Your task to perform on an android device: change notification settings in the gmail app Image 0: 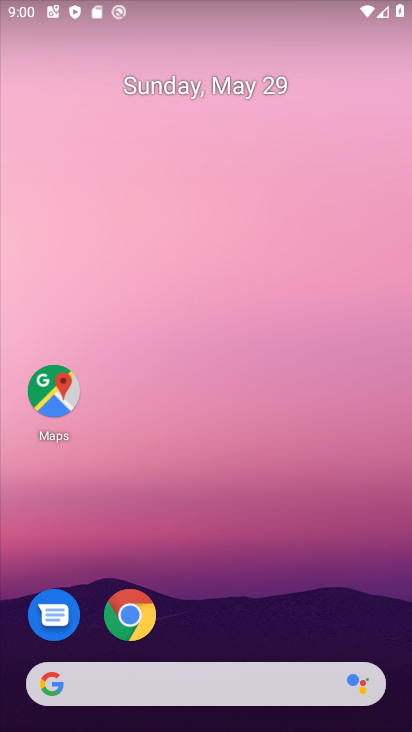
Step 0: drag from (307, 621) to (399, 6)
Your task to perform on an android device: change notification settings in the gmail app Image 1: 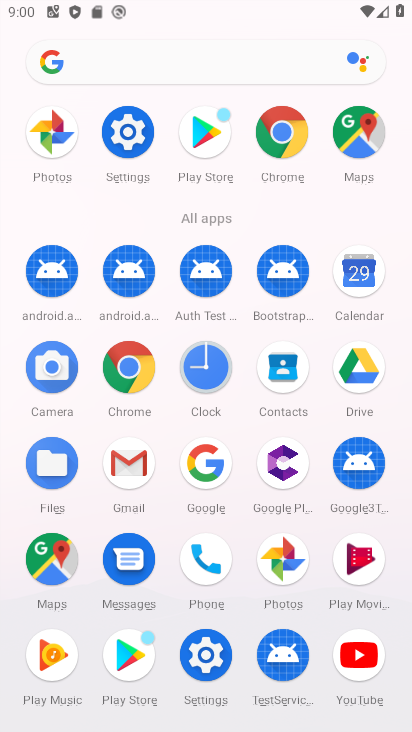
Step 1: click (129, 456)
Your task to perform on an android device: change notification settings in the gmail app Image 2: 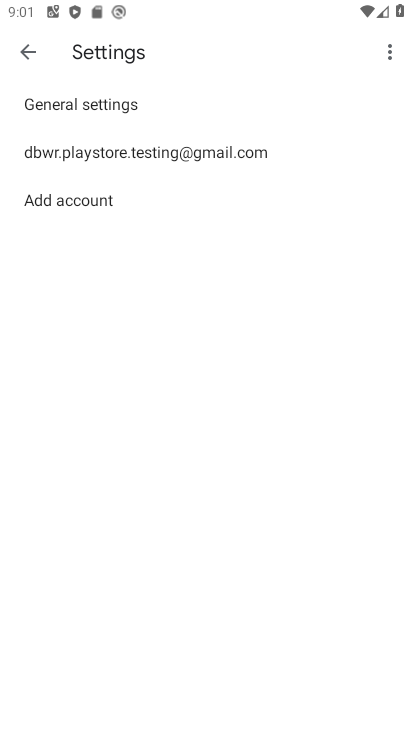
Step 2: click (150, 157)
Your task to perform on an android device: change notification settings in the gmail app Image 3: 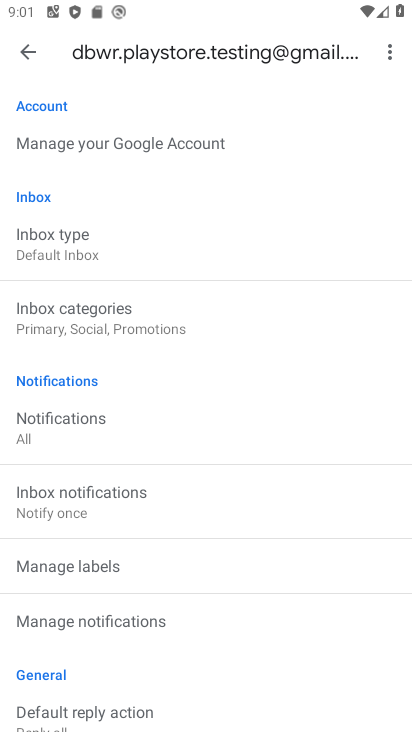
Step 3: click (89, 610)
Your task to perform on an android device: change notification settings in the gmail app Image 4: 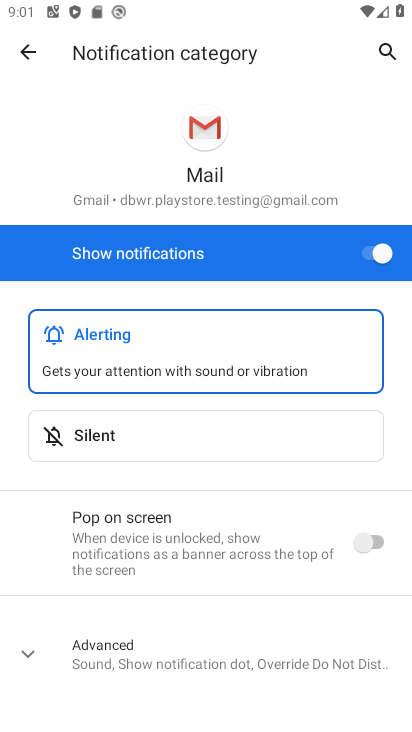
Step 4: click (383, 248)
Your task to perform on an android device: change notification settings in the gmail app Image 5: 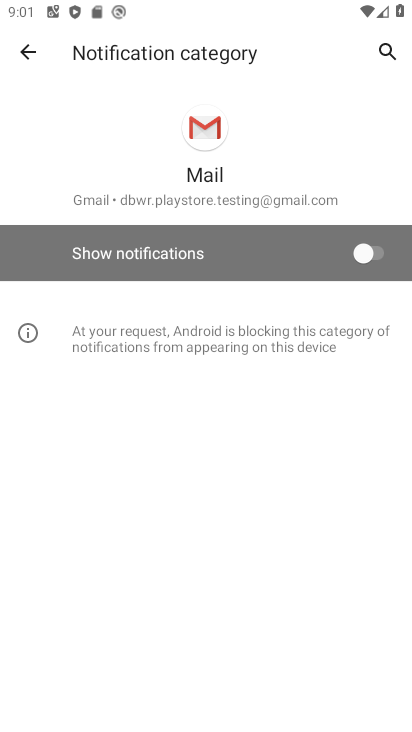
Step 5: task complete